Your task to perform on an android device: toggle show notifications on the lock screen Image 0: 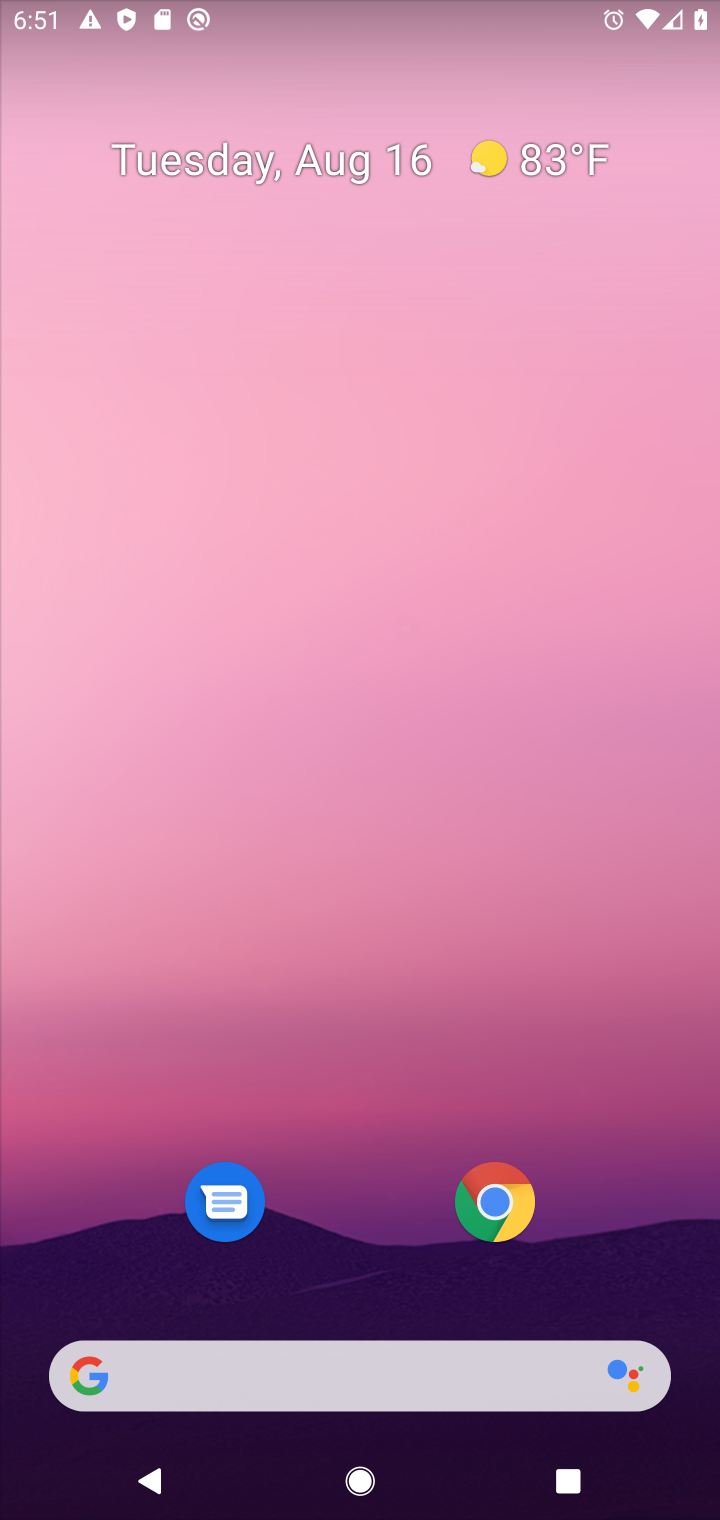
Step 0: drag from (581, 1133) to (444, 67)
Your task to perform on an android device: toggle show notifications on the lock screen Image 1: 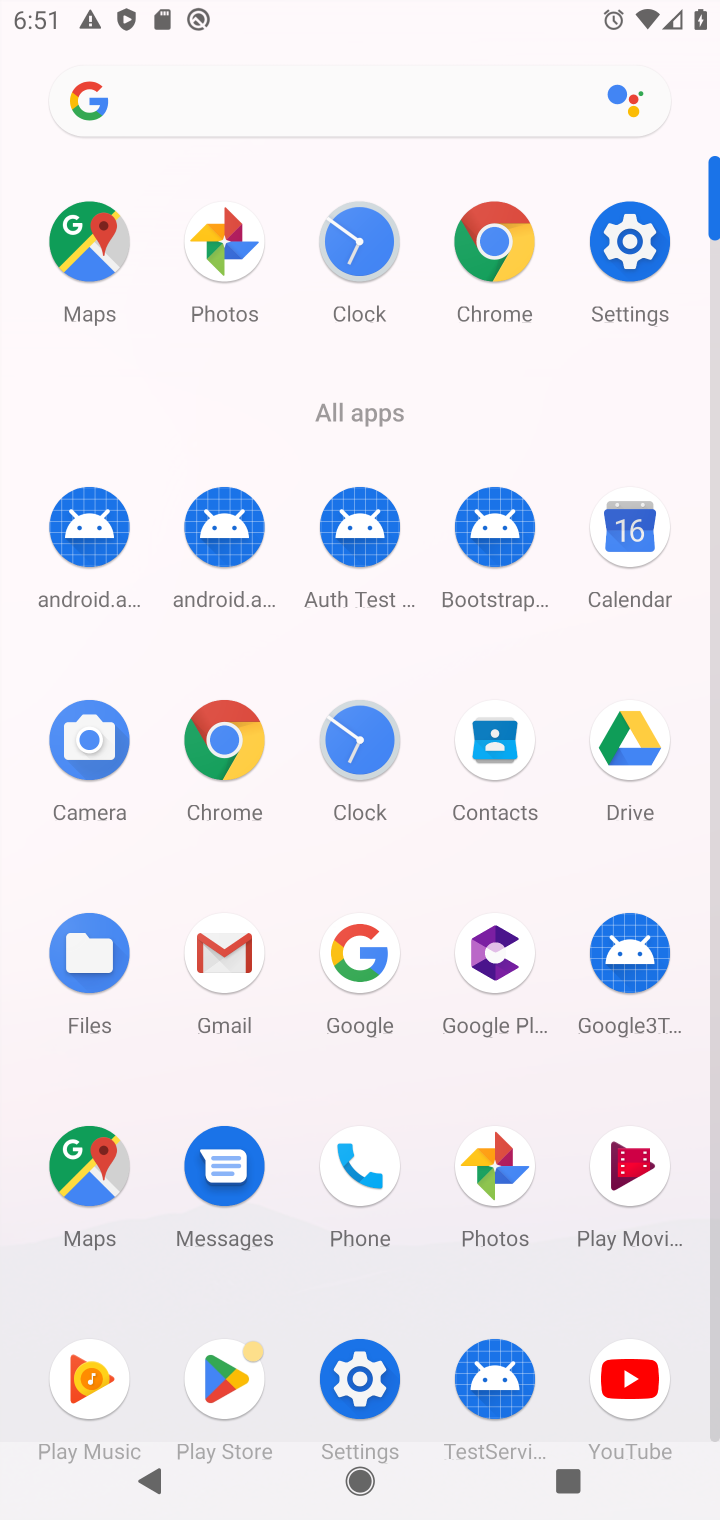
Step 1: click (361, 1361)
Your task to perform on an android device: toggle show notifications on the lock screen Image 2: 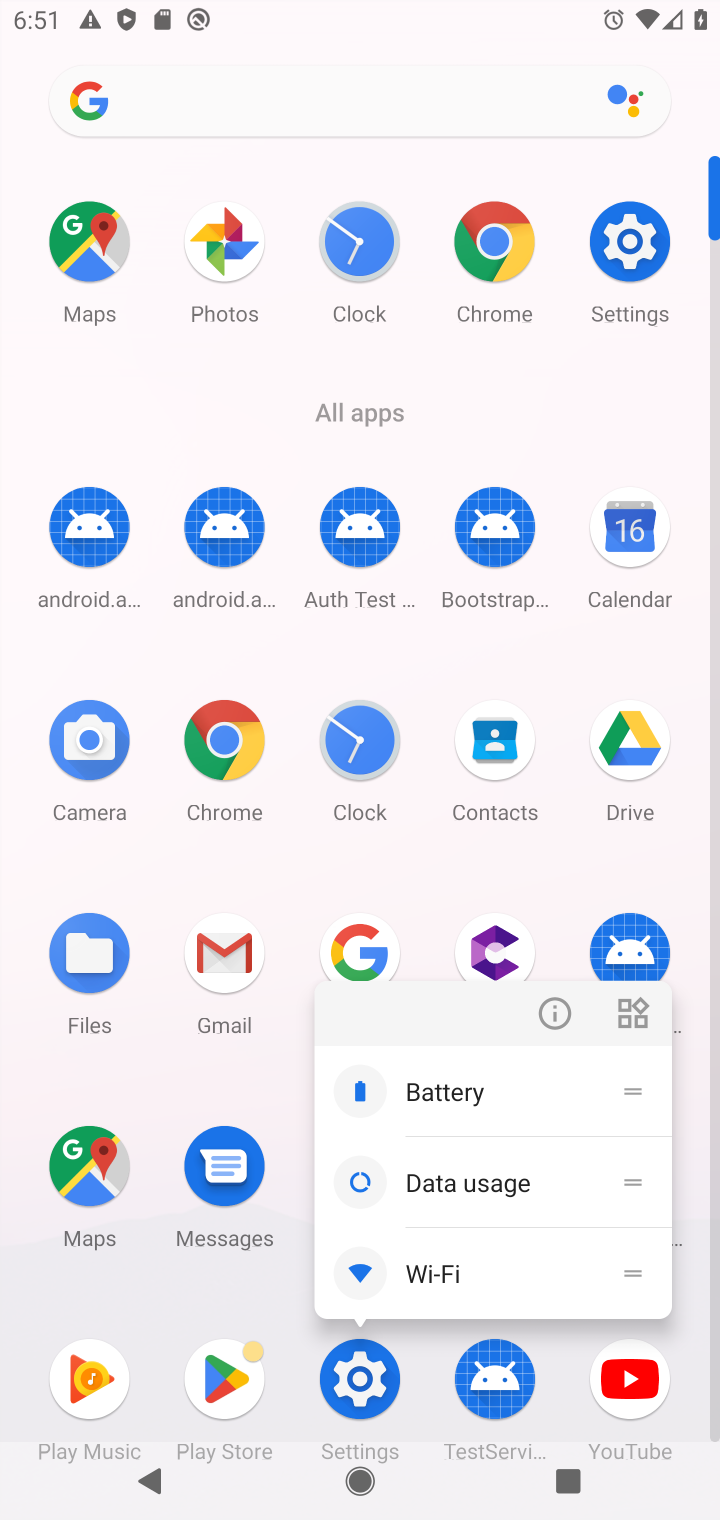
Step 2: click (361, 1361)
Your task to perform on an android device: toggle show notifications on the lock screen Image 3: 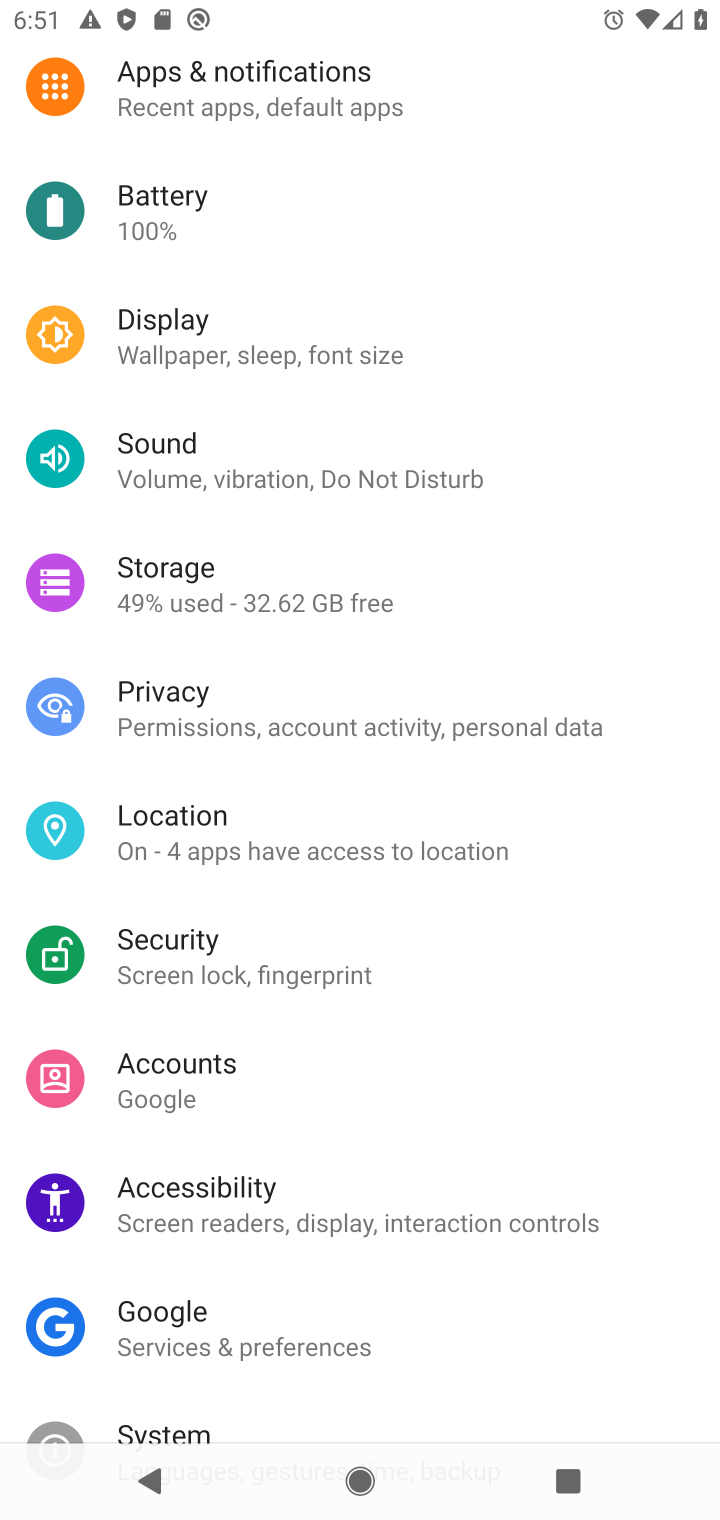
Step 3: click (278, 85)
Your task to perform on an android device: toggle show notifications on the lock screen Image 4: 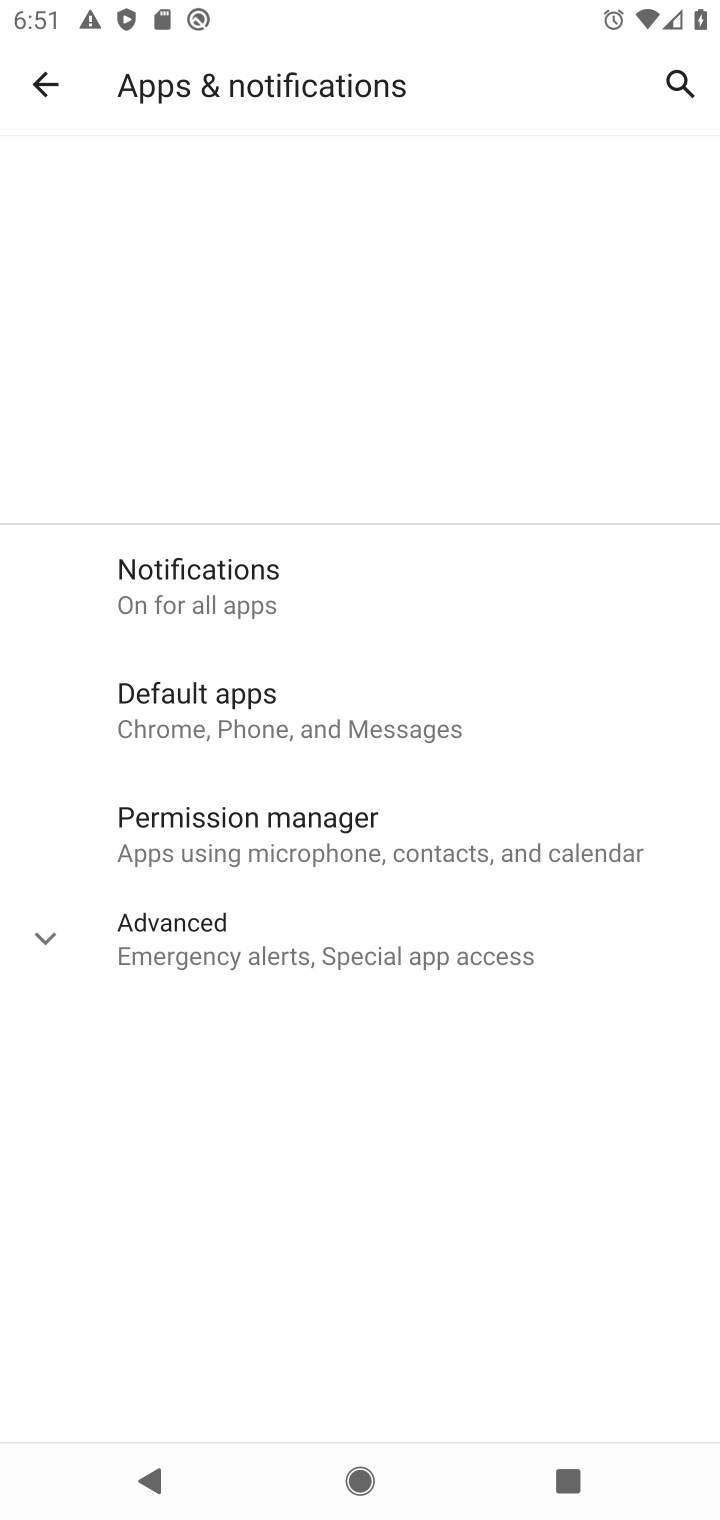
Step 4: click (262, 581)
Your task to perform on an android device: toggle show notifications on the lock screen Image 5: 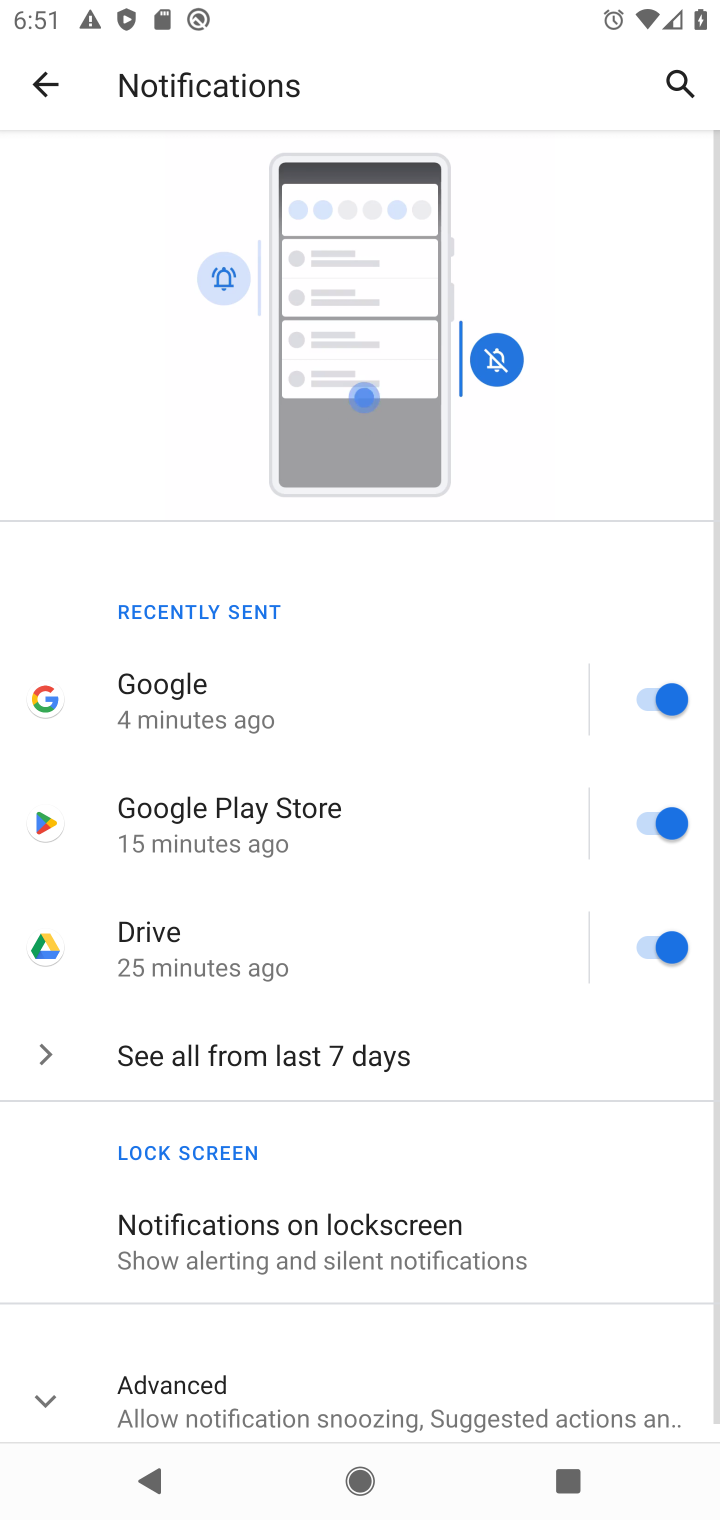
Step 5: click (431, 1266)
Your task to perform on an android device: toggle show notifications on the lock screen Image 6: 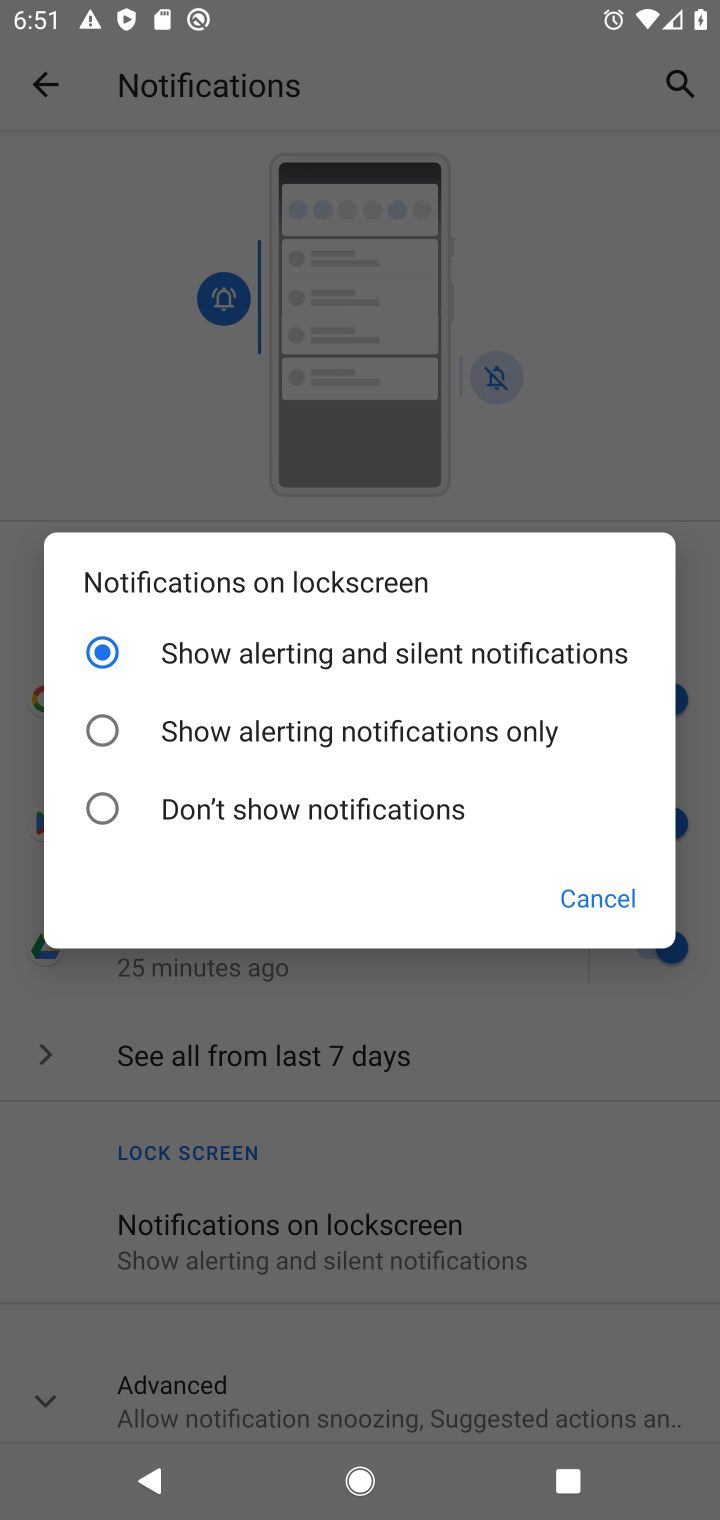
Step 6: click (129, 808)
Your task to perform on an android device: toggle show notifications on the lock screen Image 7: 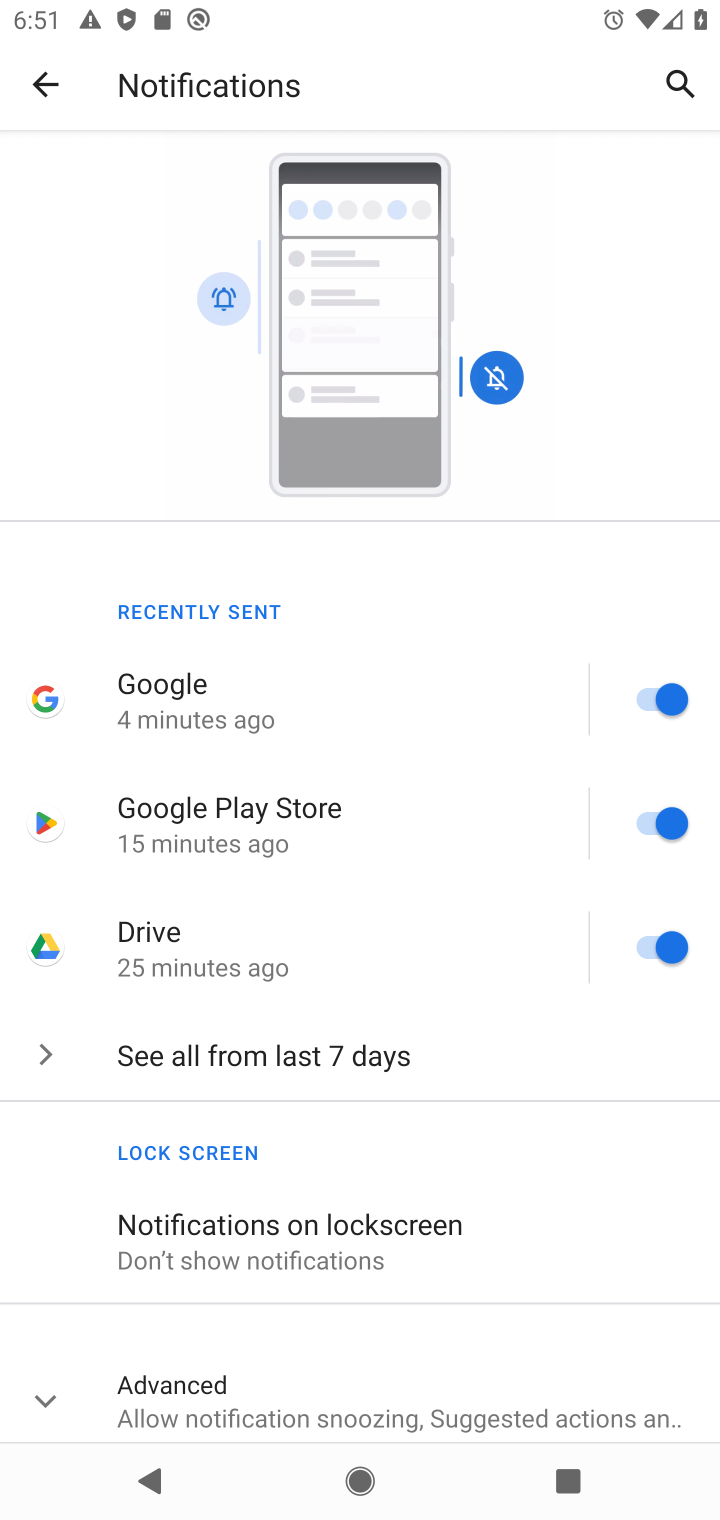
Step 7: task complete